Your task to perform on an android device: toggle improve location accuracy Image 0: 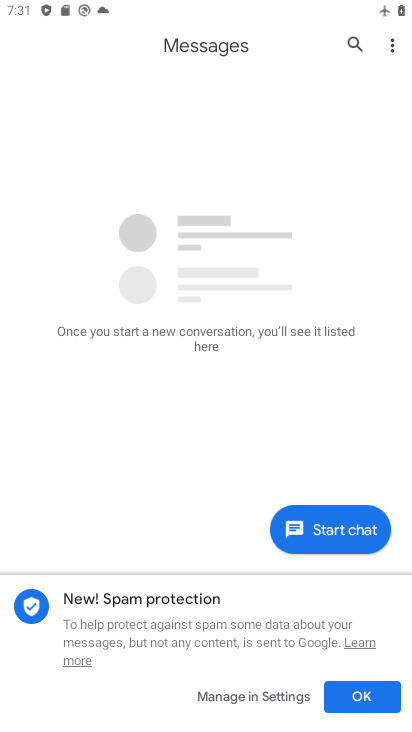
Step 0: press back button
Your task to perform on an android device: toggle improve location accuracy Image 1: 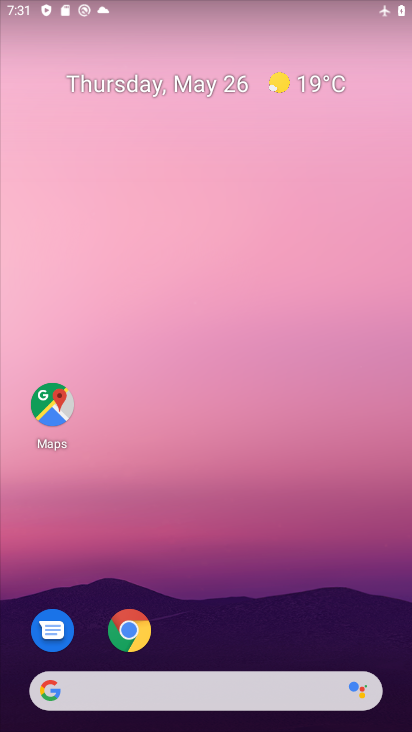
Step 1: drag from (238, 634) to (223, 282)
Your task to perform on an android device: toggle improve location accuracy Image 2: 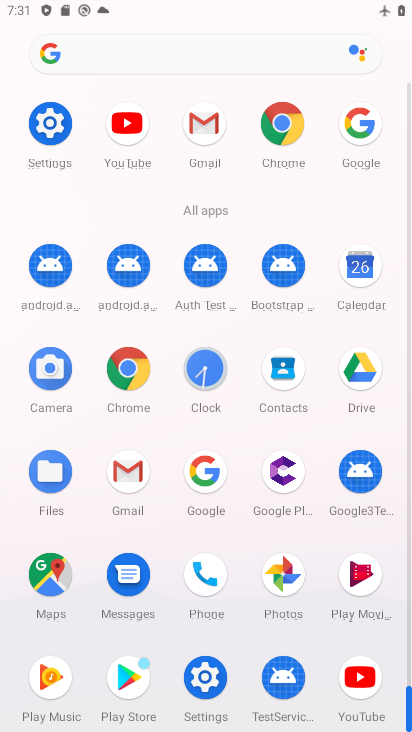
Step 2: click (49, 124)
Your task to perform on an android device: toggle improve location accuracy Image 3: 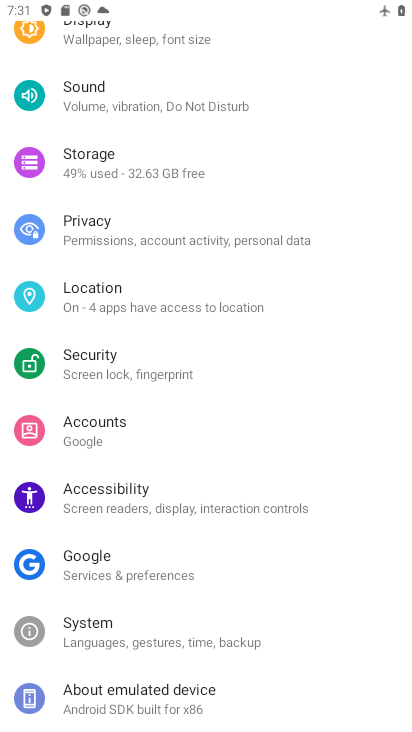
Step 3: click (108, 311)
Your task to perform on an android device: toggle improve location accuracy Image 4: 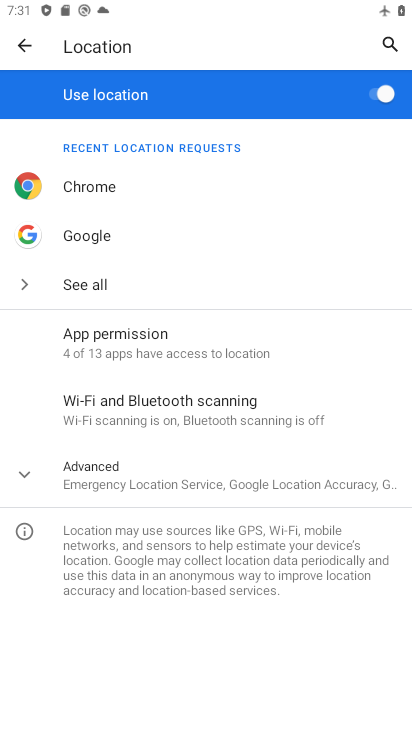
Step 4: click (151, 482)
Your task to perform on an android device: toggle improve location accuracy Image 5: 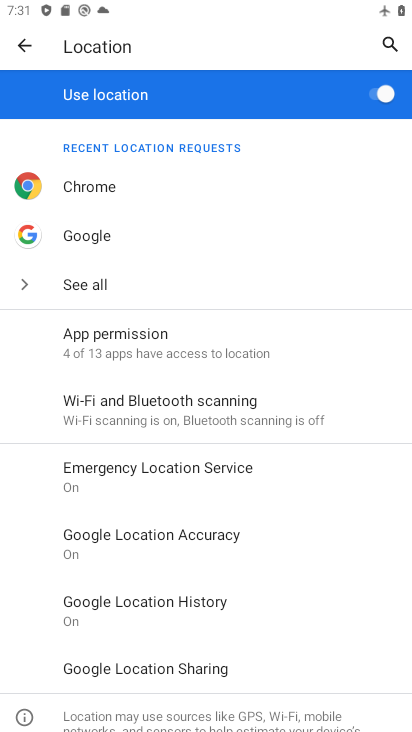
Step 5: click (177, 535)
Your task to perform on an android device: toggle improve location accuracy Image 6: 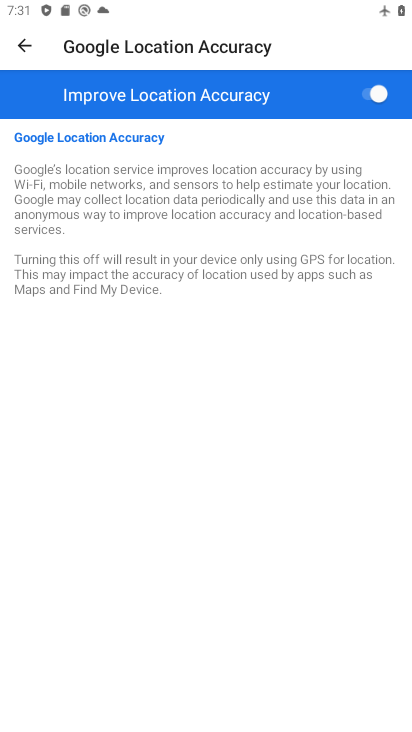
Step 6: click (371, 96)
Your task to perform on an android device: toggle improve location accuracy Image 7: 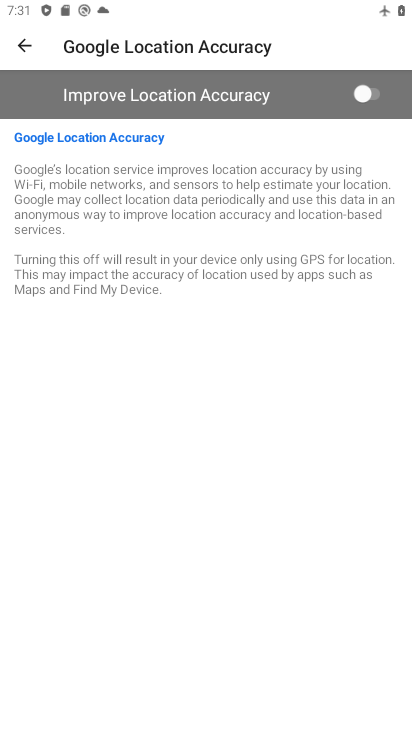
Step 7: task complete